Your task to perform on an android device: Open Wikipedia Image 0: 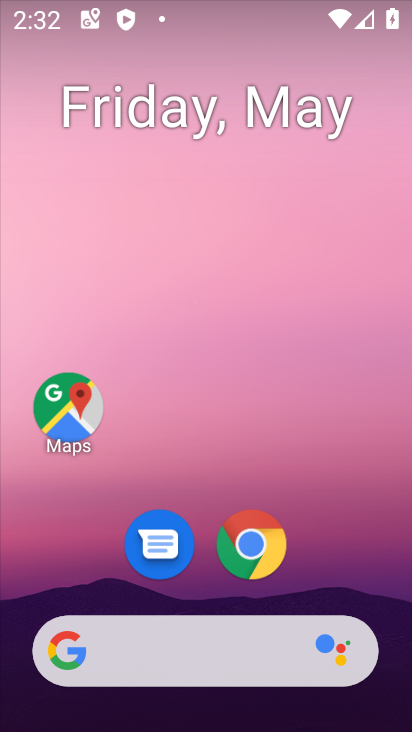
Step 0: click (232, 568)
Your task to perform on an android device: Open Wikipedia Image 1: 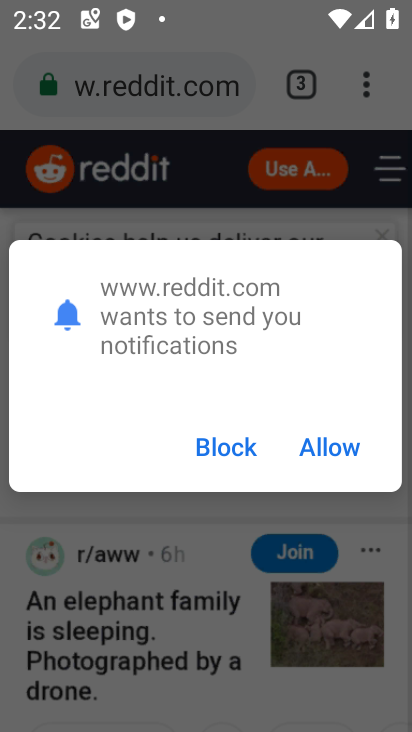
Step 1: click (377, 72)
Your task to perform on an android device: Open Wikipedia Image 2: 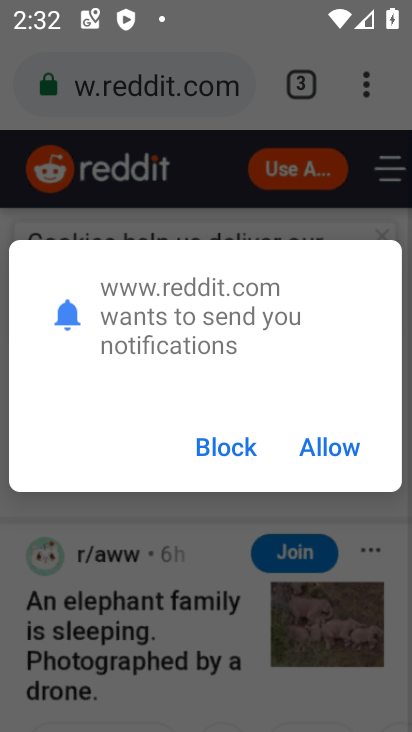
Step 2: click (309, 90)
Your task to perform on an android device: Open Wikipedia Image 3: 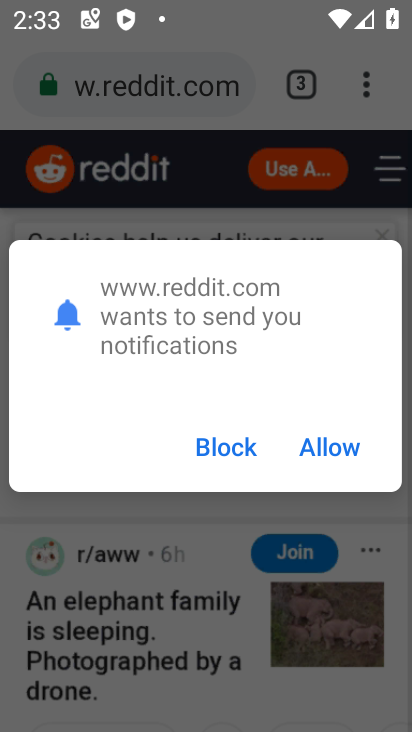
Step 3: click (315, 450)
Your task to perform on an android device: Open Wikipedia Image 4: 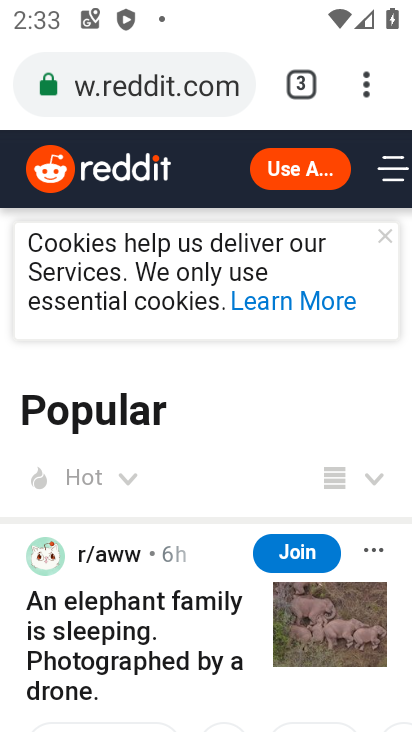
Step 4: click (300, 88)
Your task to perform on an android device: Open Wikipedia Image 5: 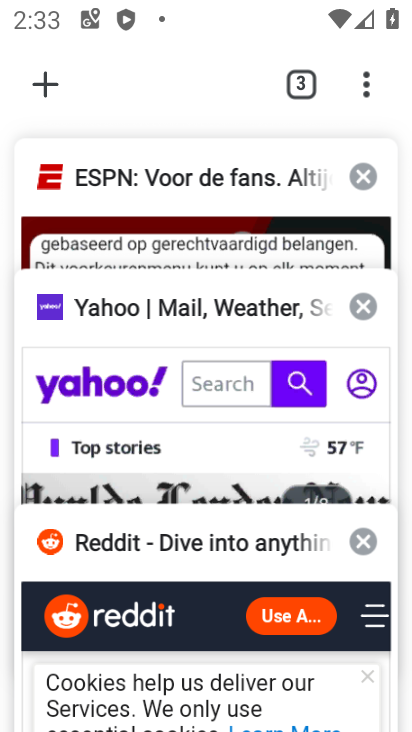
Step 5: click (40, 81)
Your task to perform on an android device: Open Wikipedia Image 6: 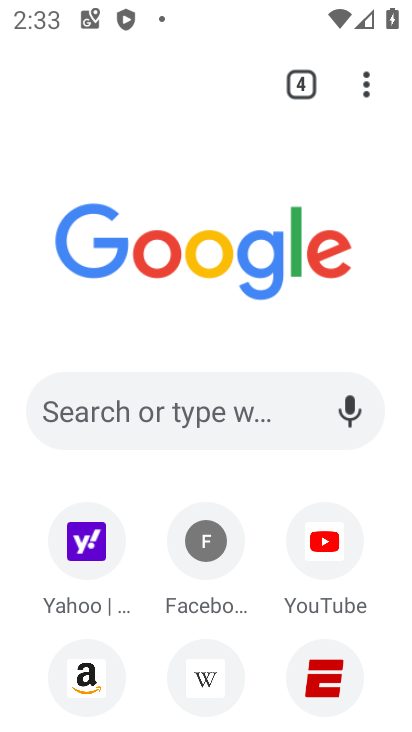
Step 6: click (161, 408)
Your task to perform on an android device: Open Wikipedia Image 7: 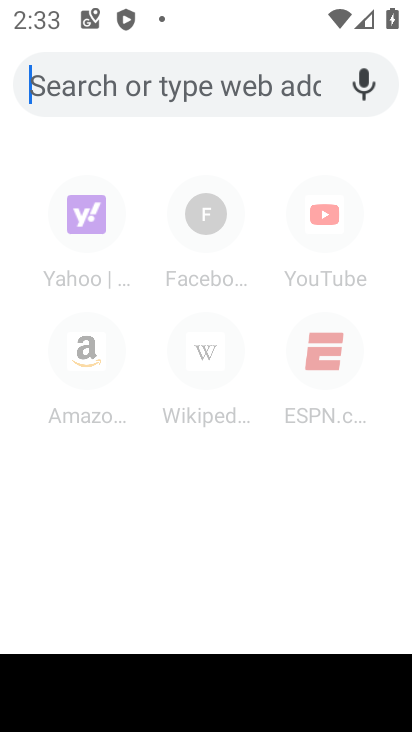
Step 7: type "Wikipedia"
Your task to perform on an android device: Open Wikipedia Image 8: 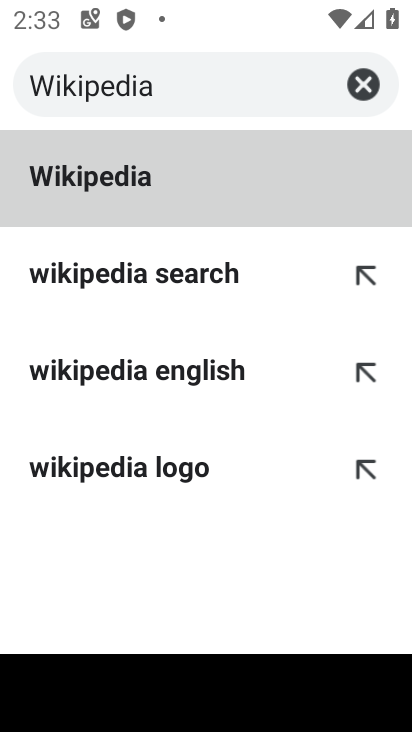
Step 8: click (151, 177)
Your task to perform on an android device: Open Wikipedia Image 9: 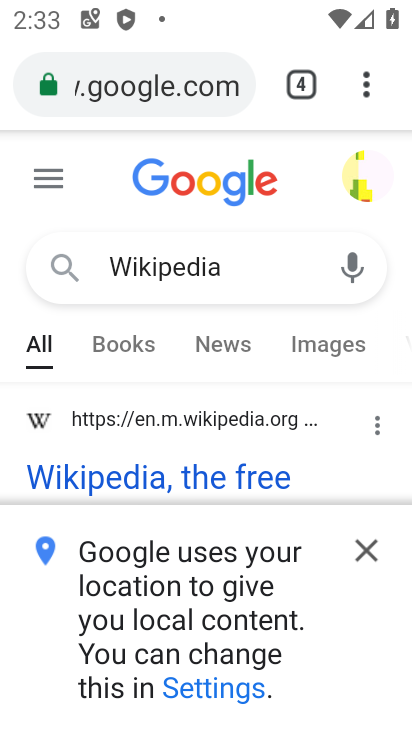
Step 9: click (82, 466)
Your task to perform on an android device: Open Wikipedia Image 10: 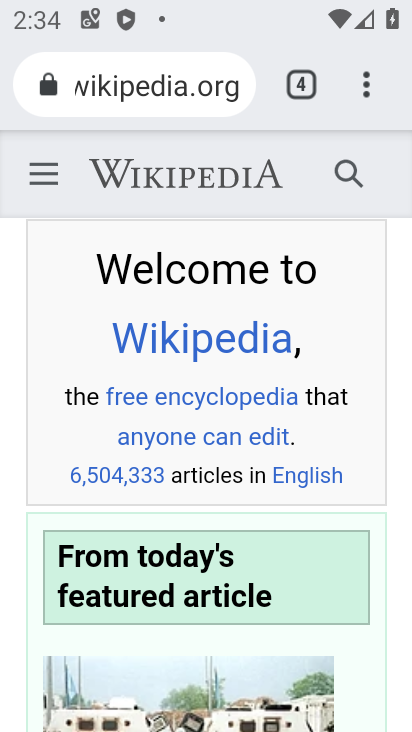
Step 10: task complete